Your task to perform on an android device: What's the news about the US dollar exchange rate? Image 0: 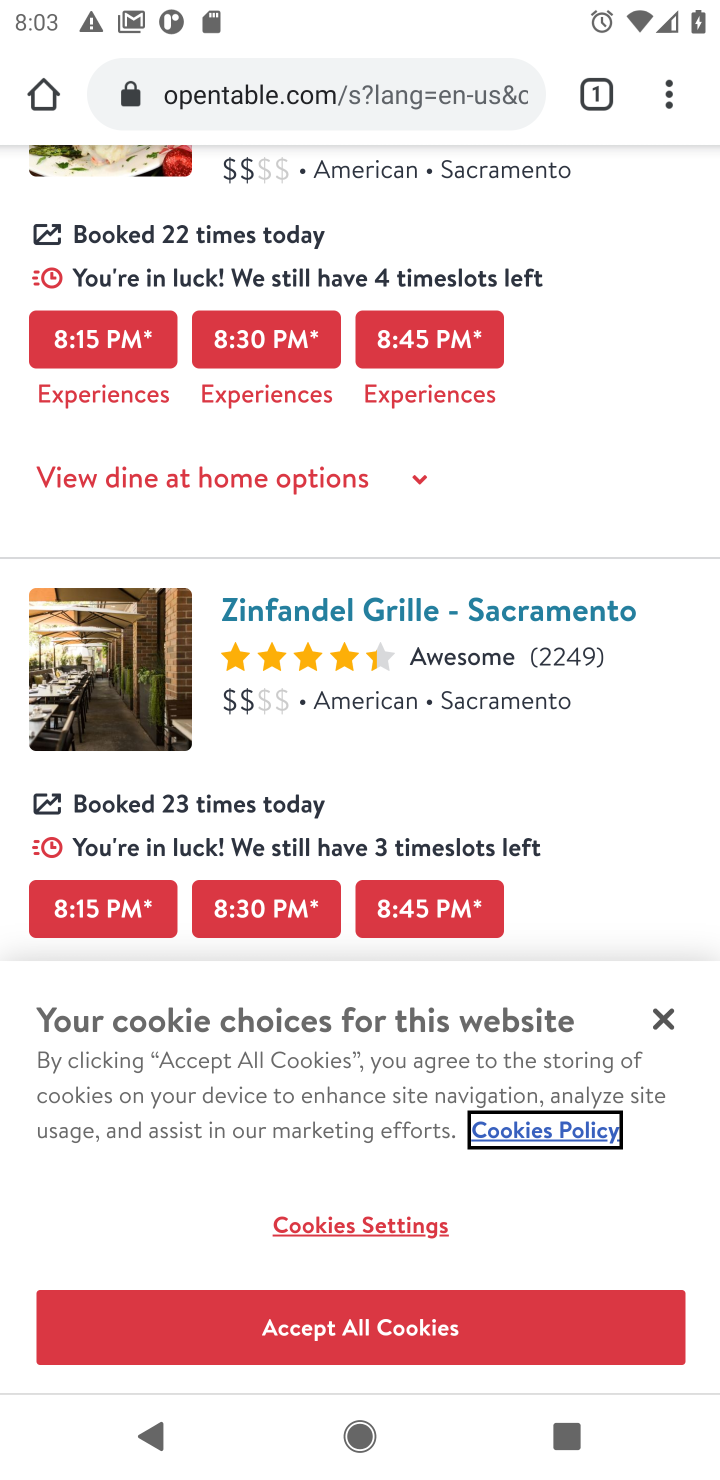
Step 0: press home button
Your task to perform on an android device: What's the news about the US dollar exchange rate? Image 1: 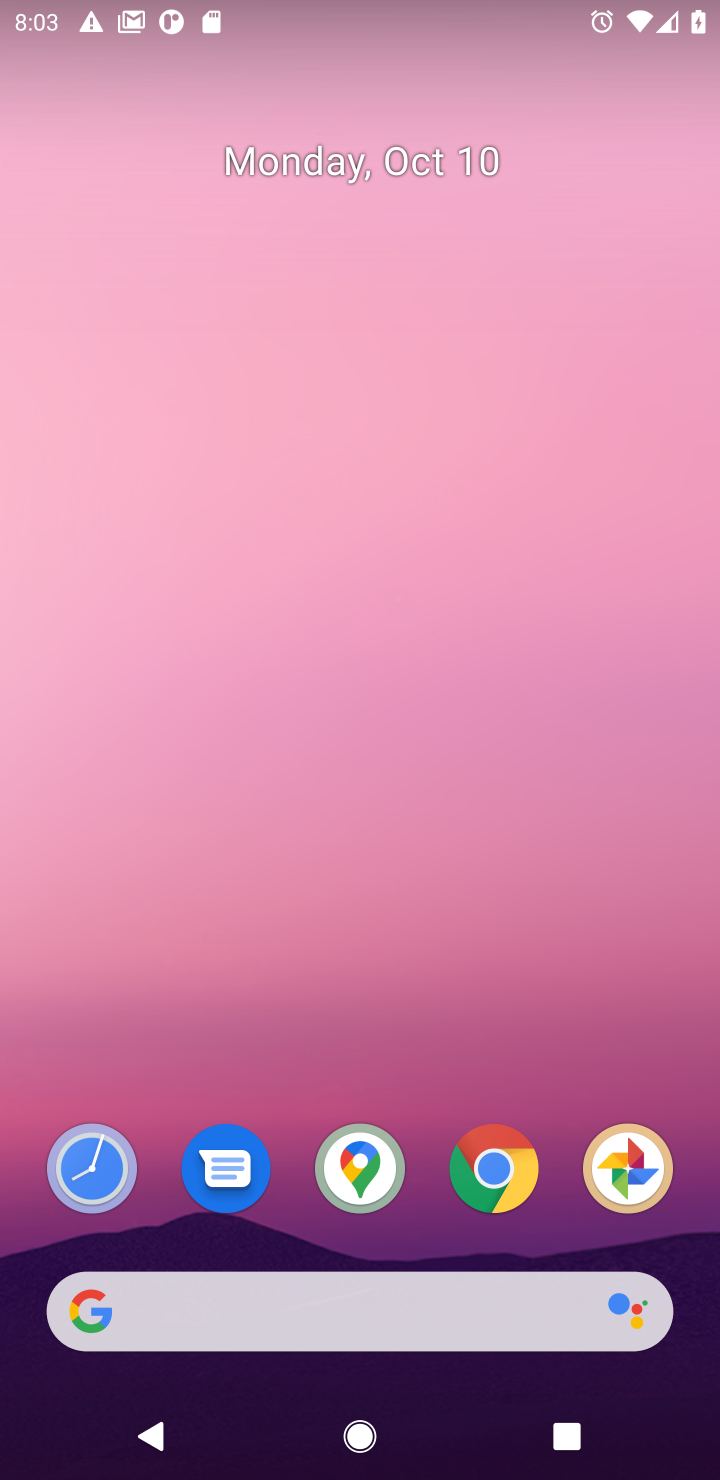
Step 1: click (502, 1176)
Your task to perform on an android device: What's the news about the US dollar exchange rate? Image 2: 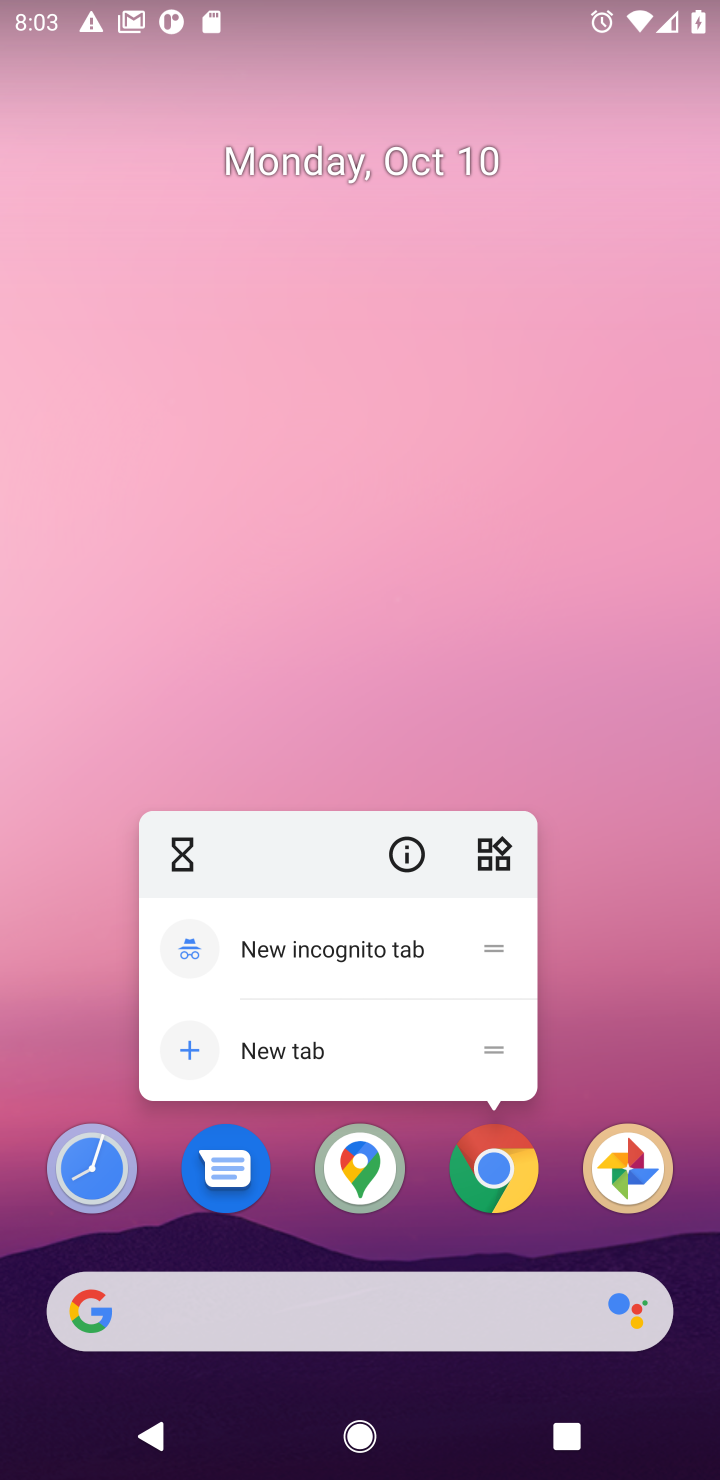
Step 2: click (502, 1176)
Your task to perform on an android device: What's the news about the US dollar exchange rate? Image 3: 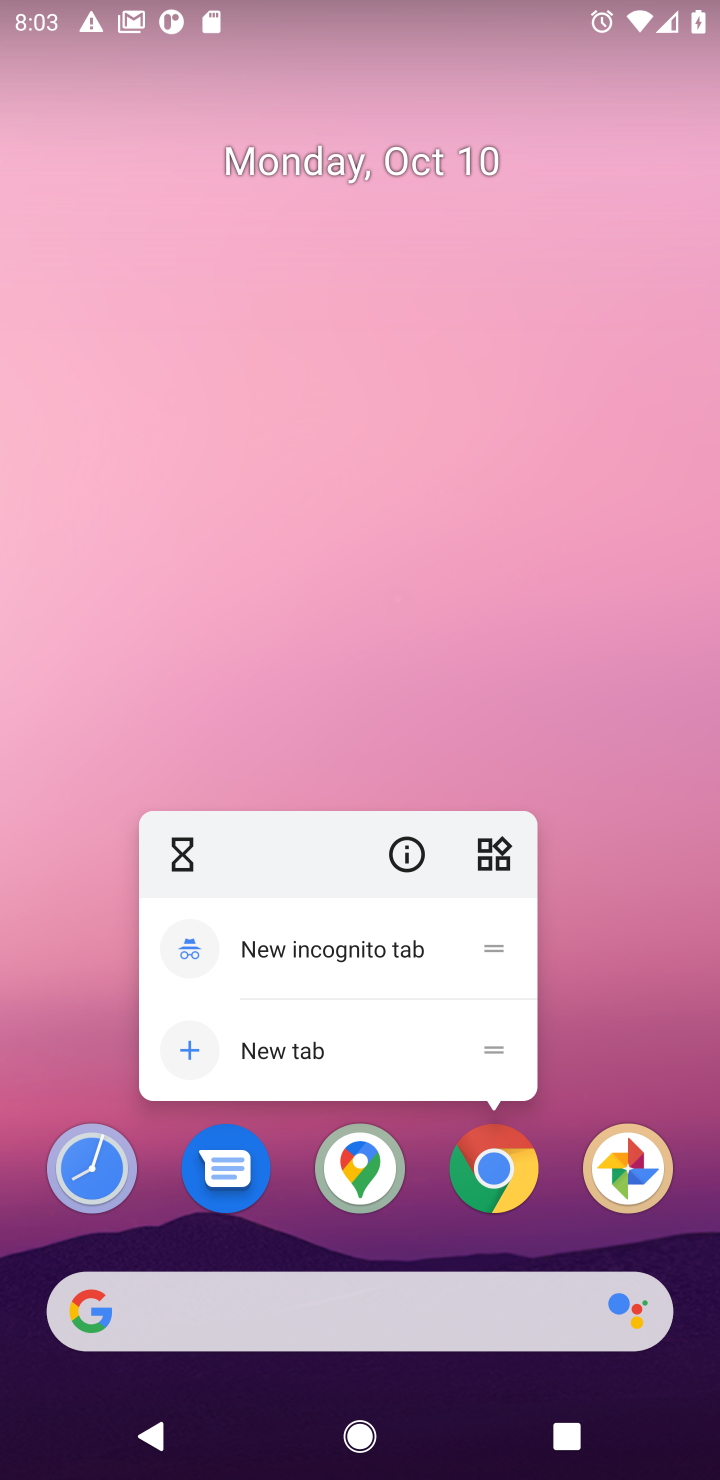
Step 3: click (502, 1176)
Your task to perform on an android device: What's the news about the US dollar exchange rate? Image 4: 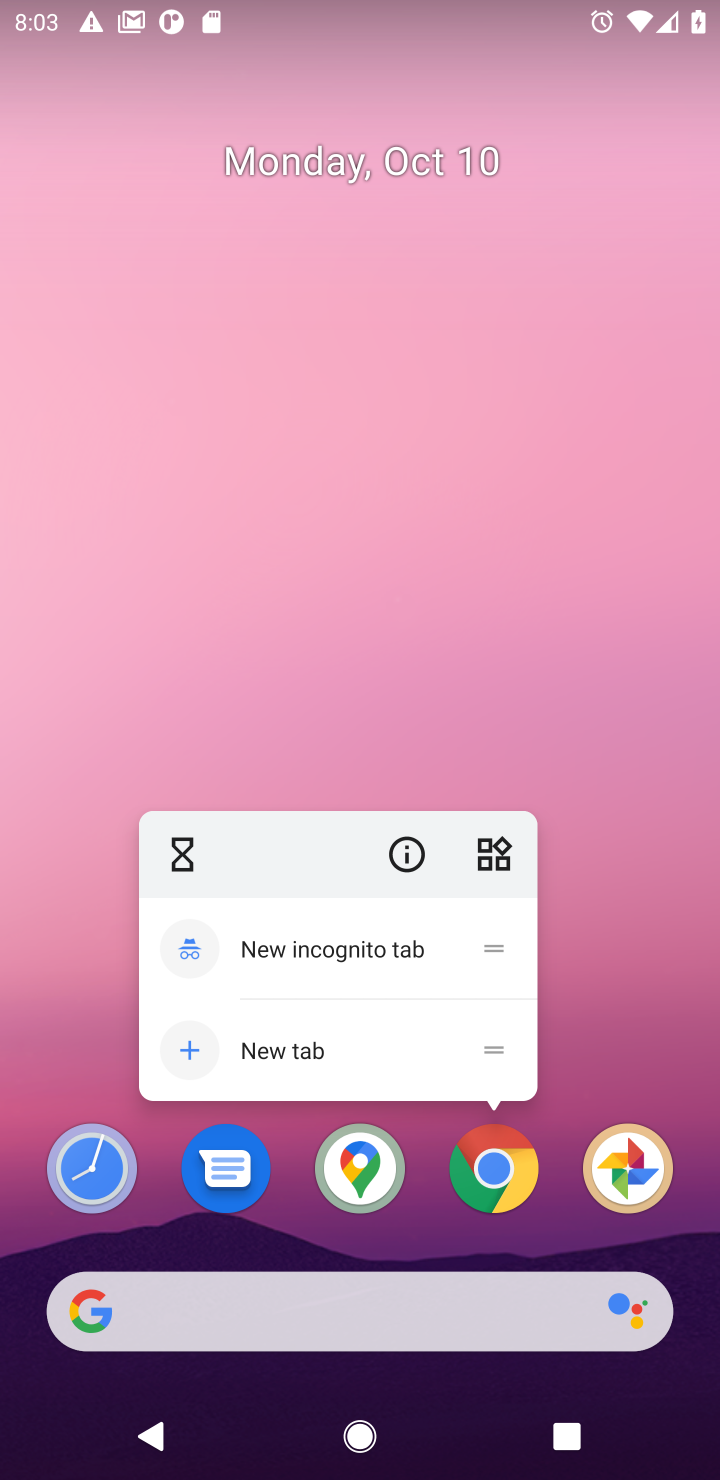
Step 4: click (502, 1176)
Your task to perform on an android device: What's the news about the US dollar exchange rate? Image 5: 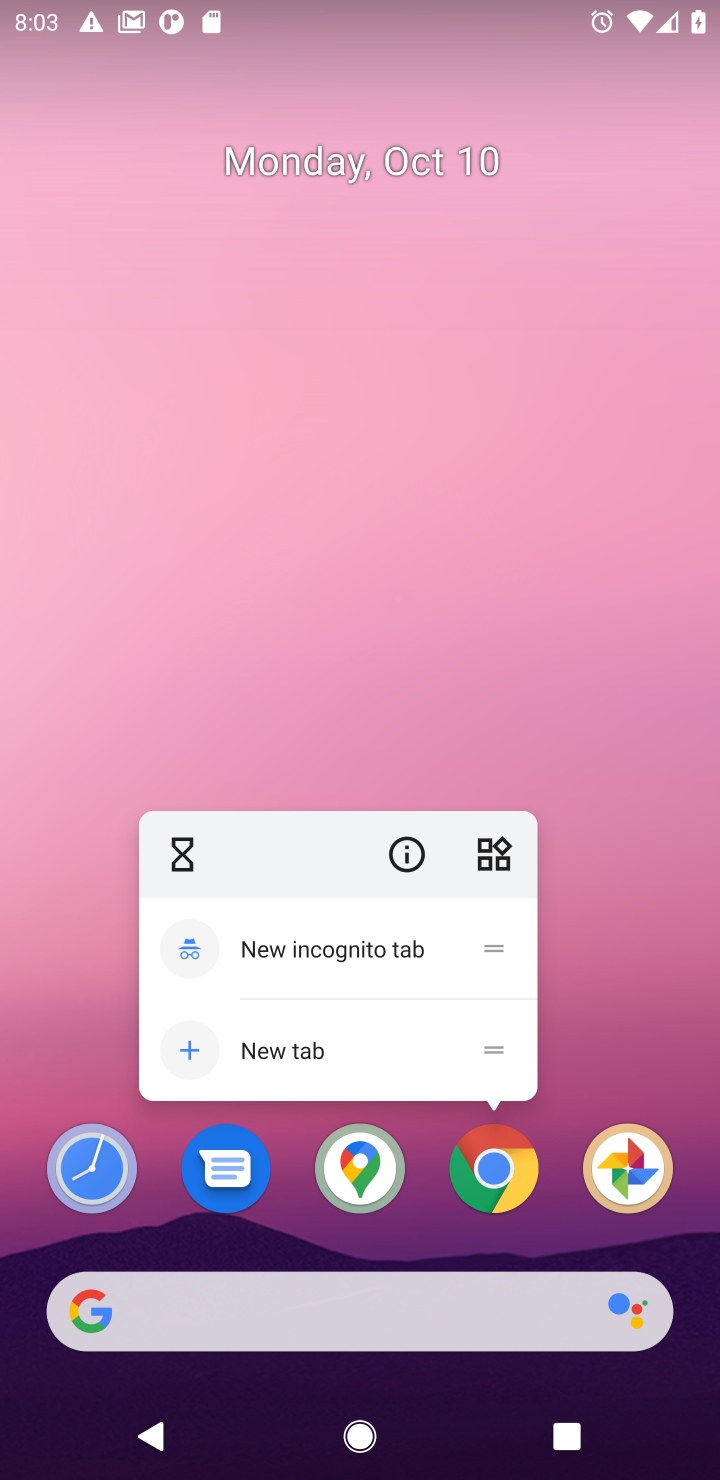
Step 5: click (502, 1176)
Your task to perform on an android device: What's the news about the US dollar exchange rate? Image 6: 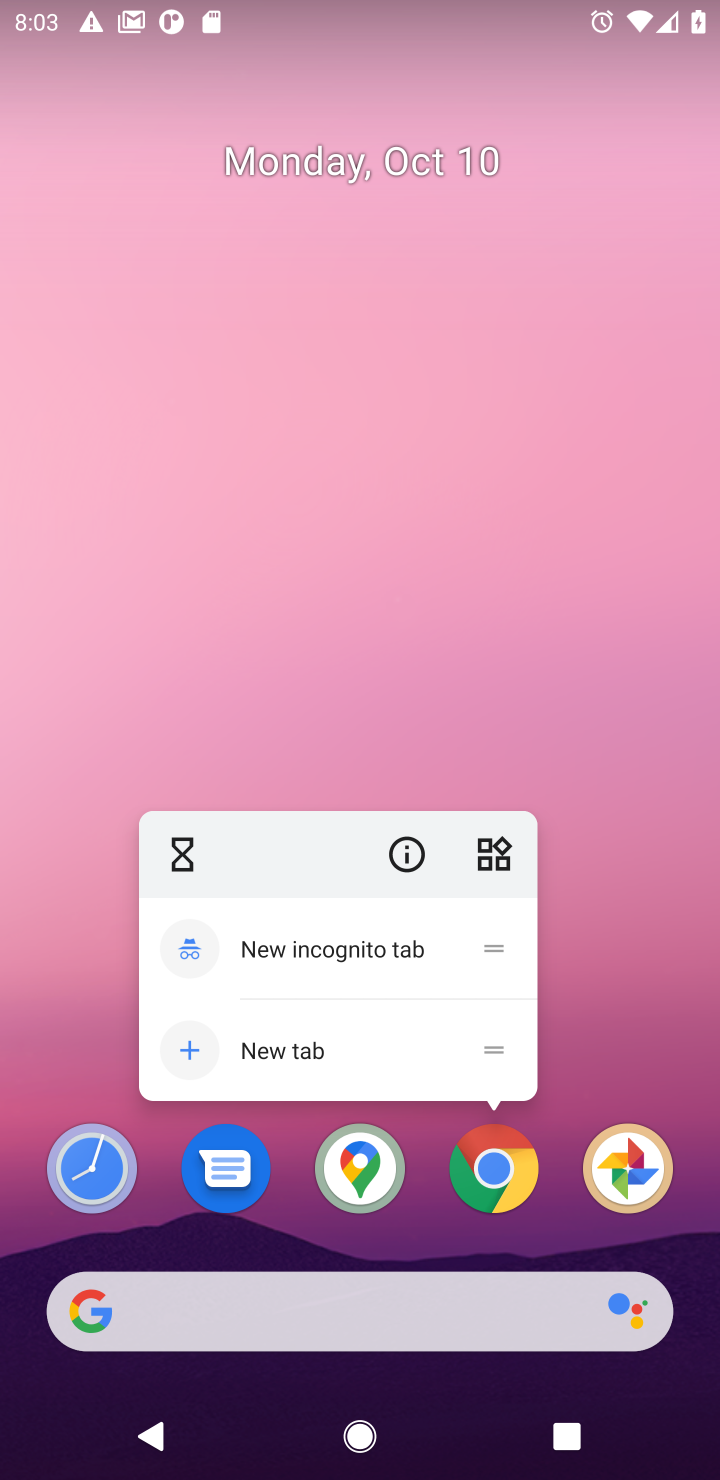
Step 6: click (509, 1202)
Your task to perform on an android device: What's the news about the US dollar exchange rate? Image 7: 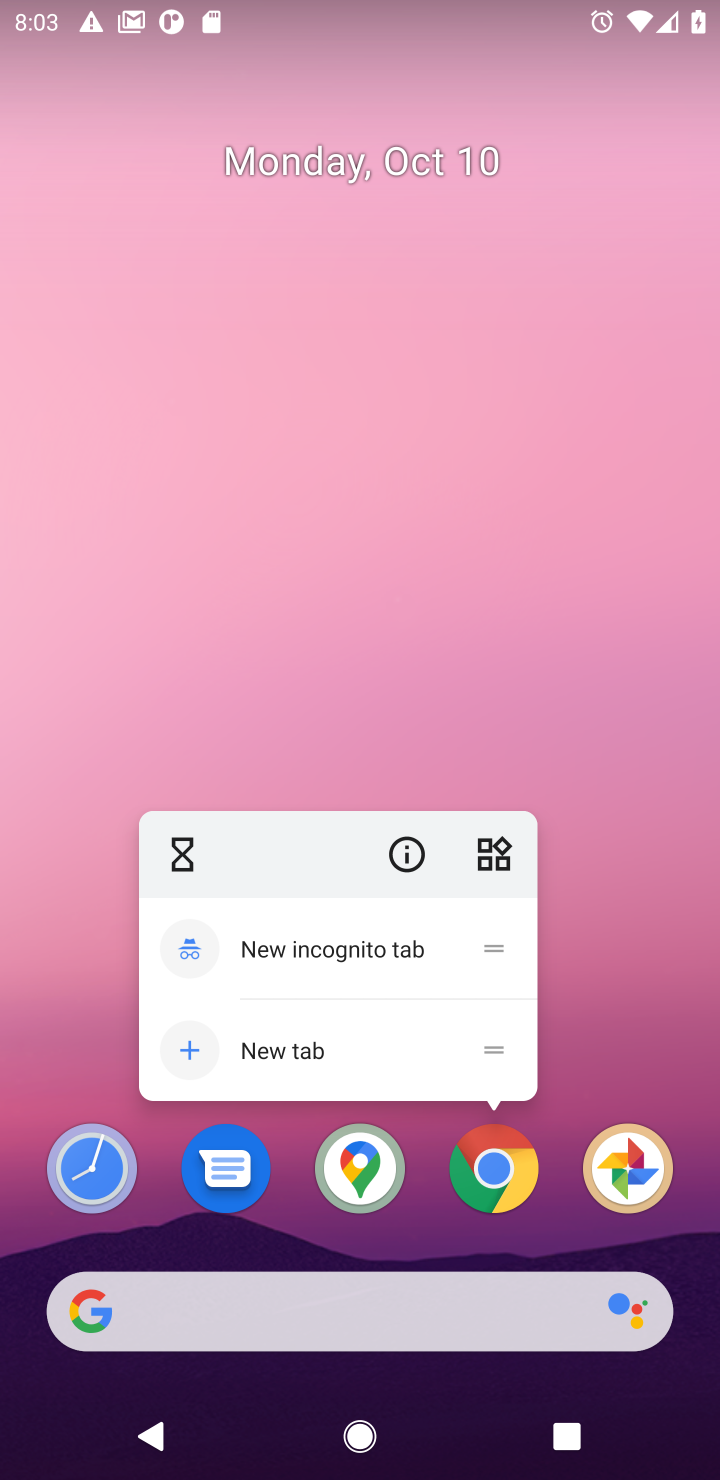
Step 7: click (491, 1193)
Your task to perform on an android device: What's the news about the US dollar exchange rate? Image 8: 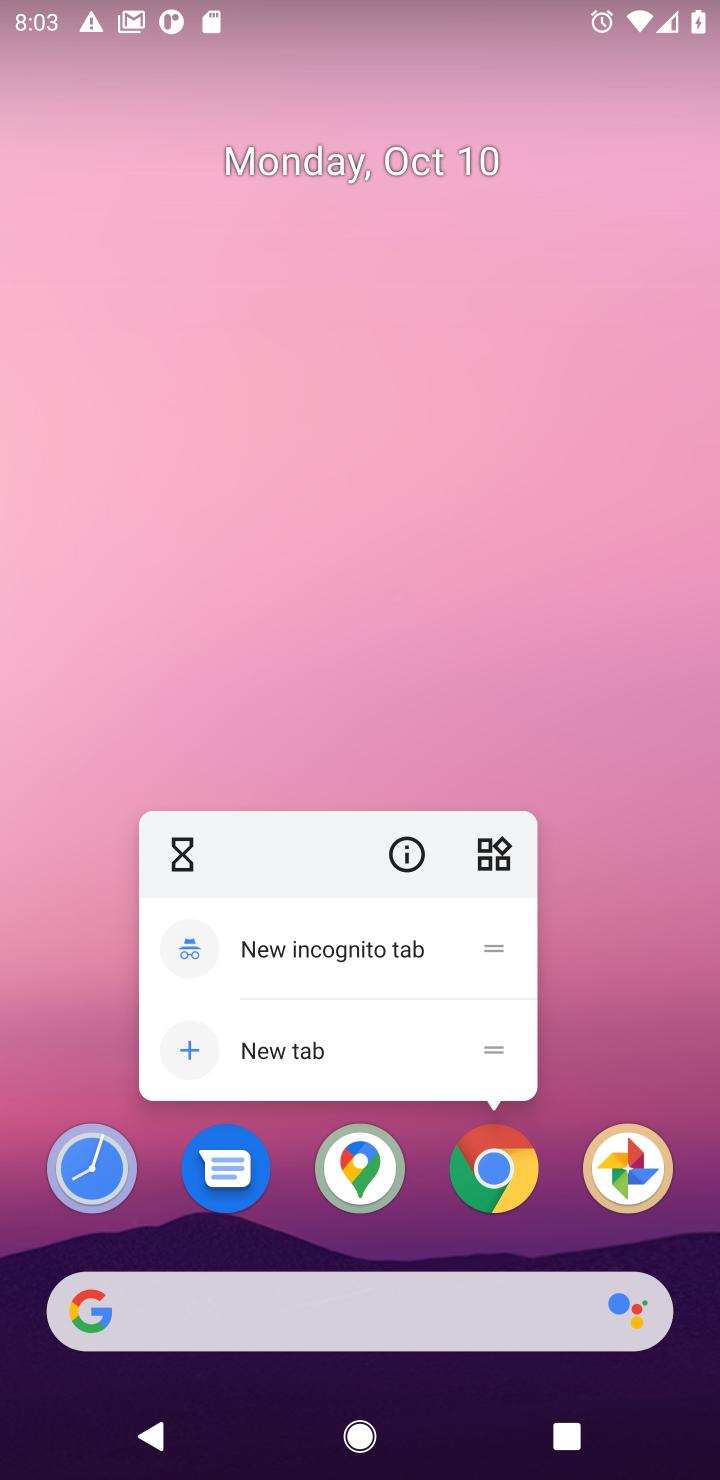
Step 8: click (502, 1172)
Your task to perform on an android device: What's the news about the US dollar exchange rate? Image 9: 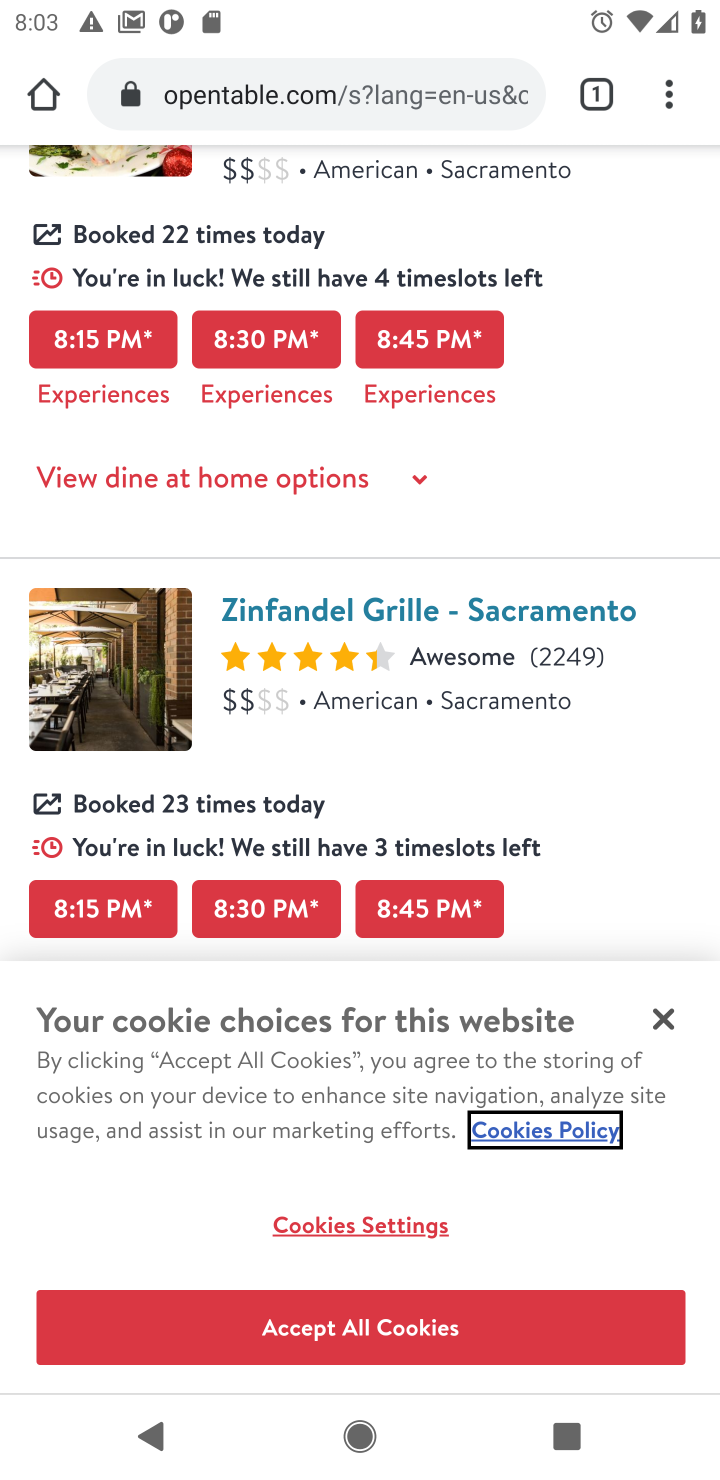
Step 9: click (332, 93)
Your task to perform on an android device: What's the news about the US dollar exchange rate? Image 10: 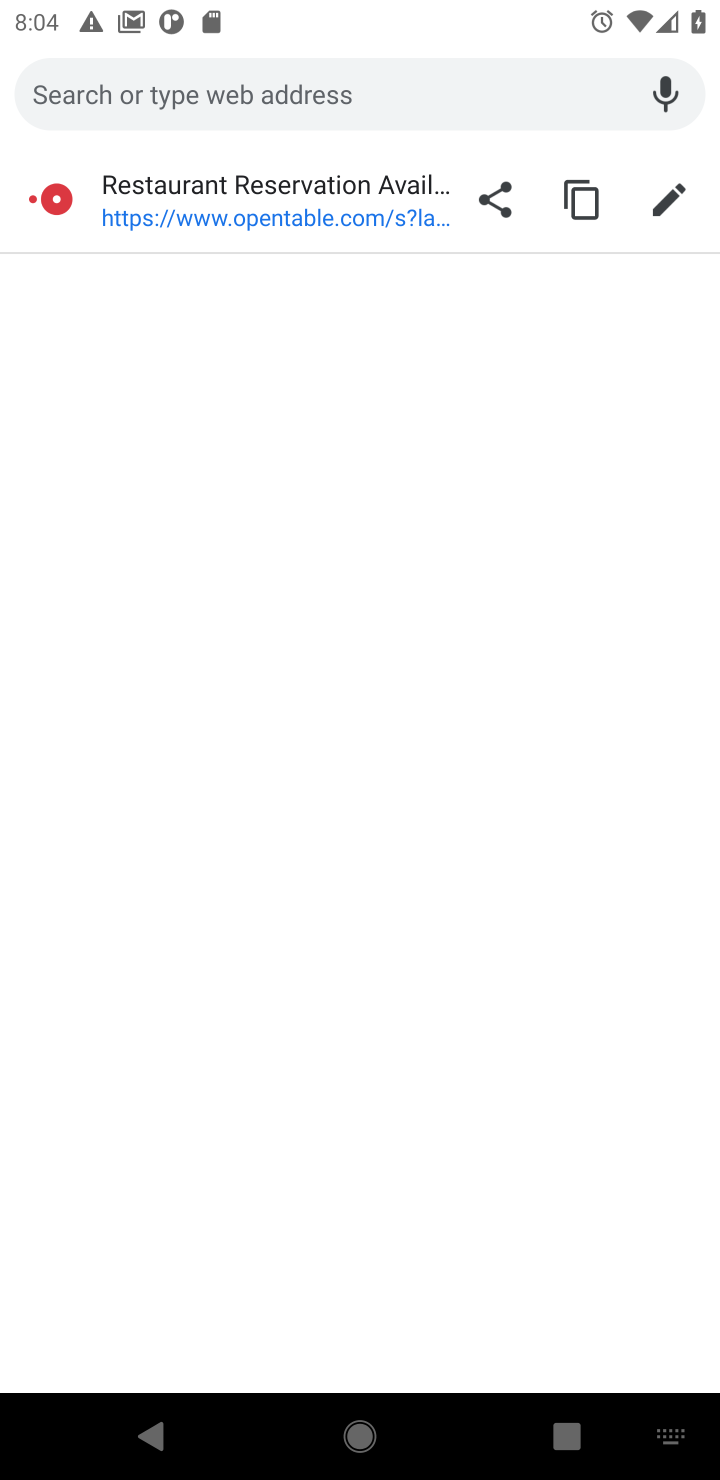
Step 10: type "news about the US dollar exchange rate"
Your task to perform on an android device: What's the news about the US dollar exchange rate? Image 11: 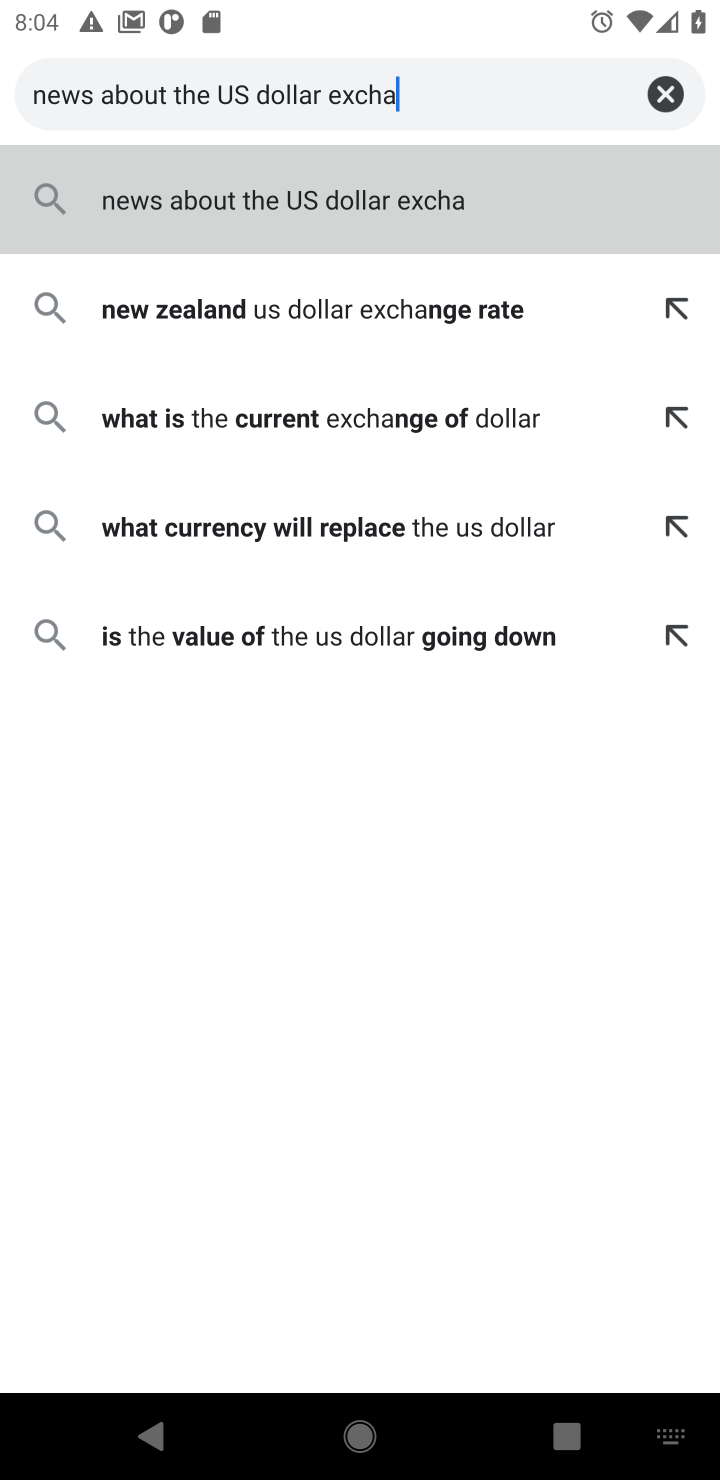
Step 11: click (268, 416)
Your task to perform on an android device: What's the news about the US dollar exchange rate? Image 12: 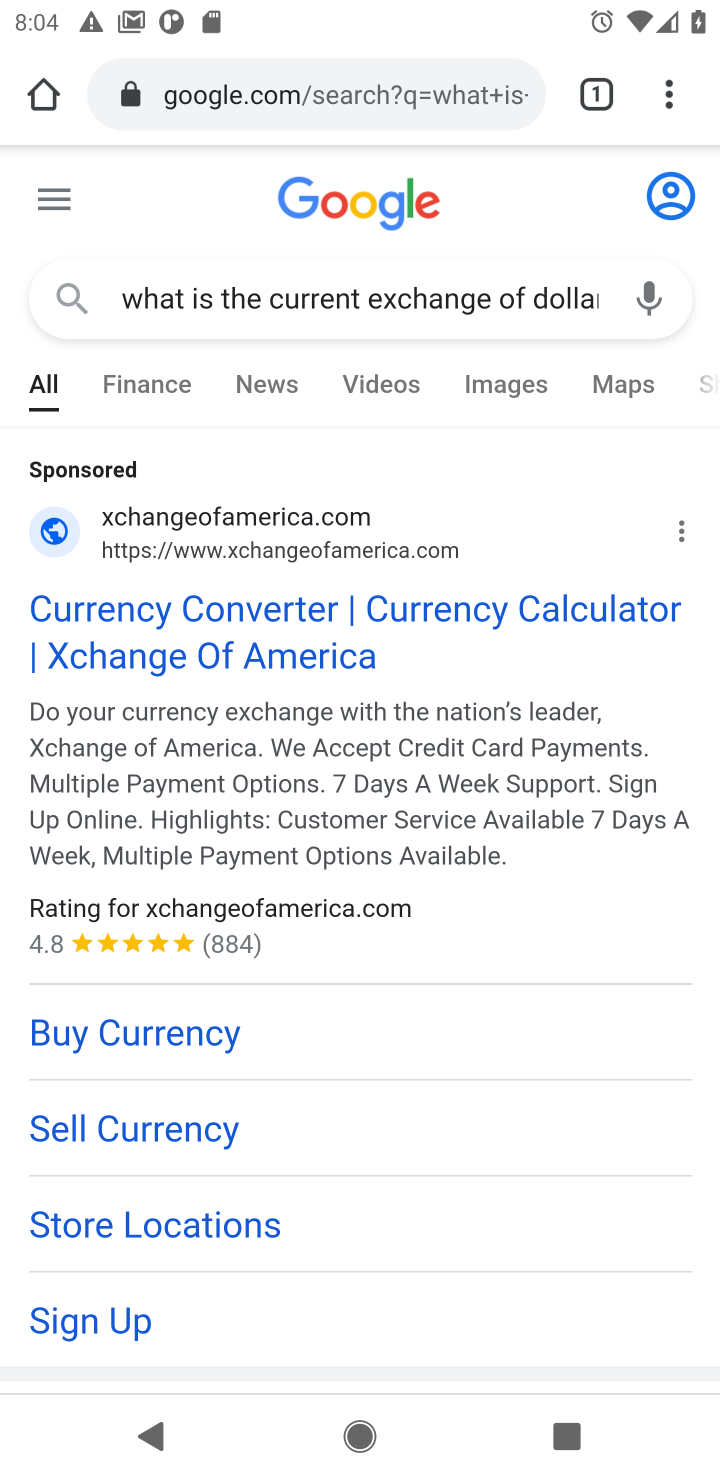
Step 12: click (157, 372)
Your task to perform on an android device: What's the news about the US dollar exchange rate? Image 13: 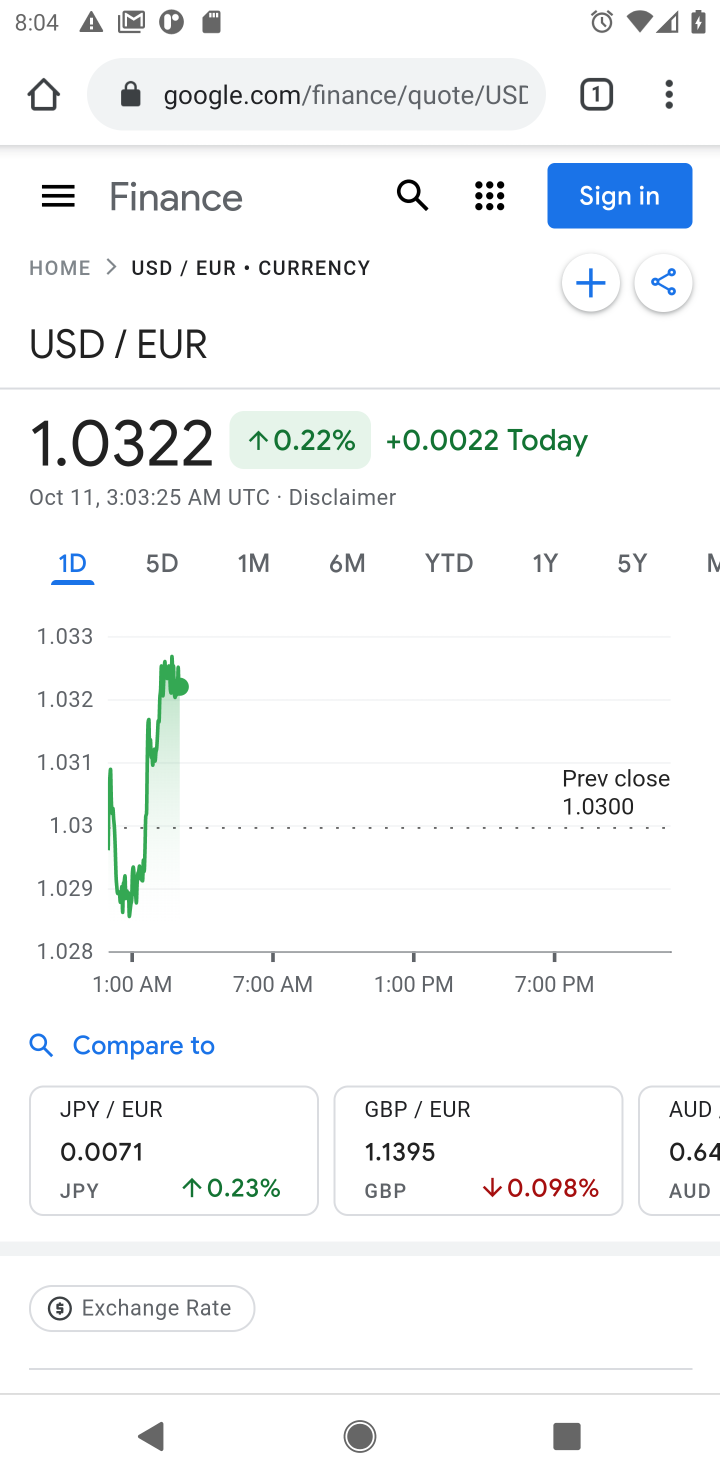
Step 13: task complete